Your task to perform on an android device: Clear all items from cart on ebay.com. Image 0: 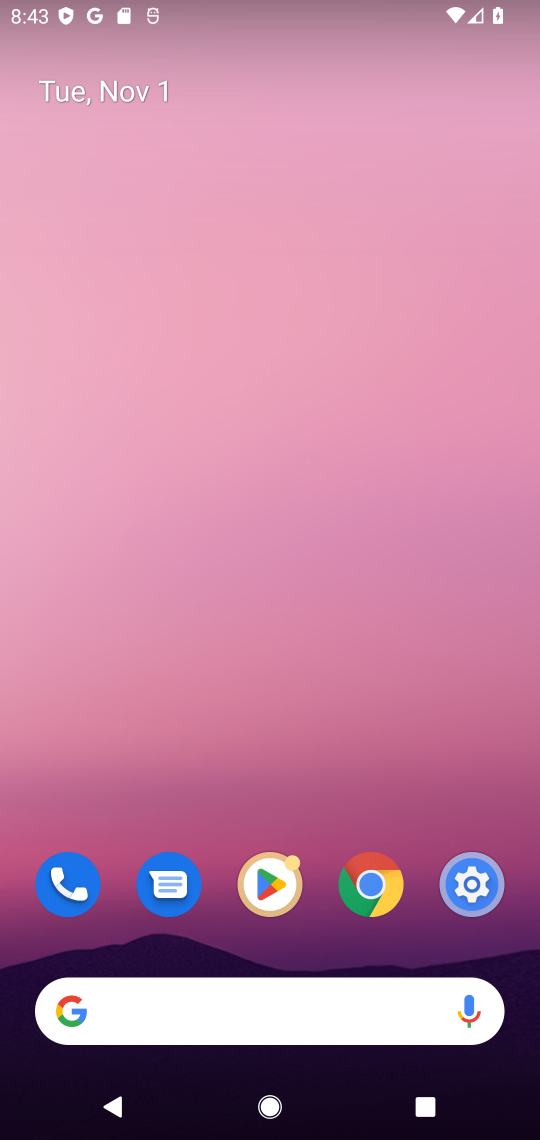
Step 0: click (367, 877)
Your task to perform on an android device: Clear all items from cart on ebay.com. Image 1: 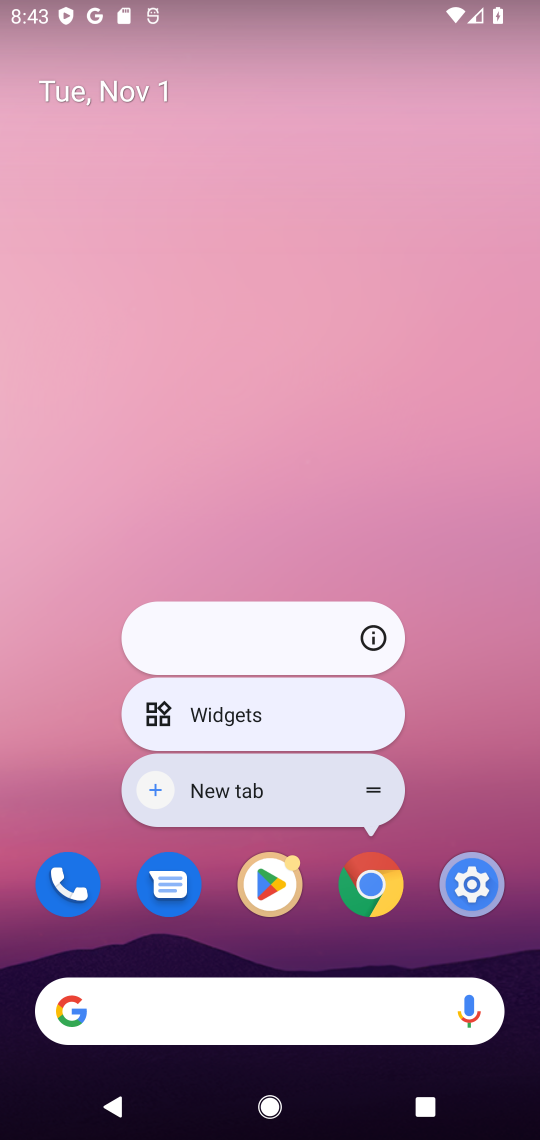
Step 1: click (387, 882)
Your task to perform on an android device: Clear all items from cart on ebay.com. Image 2: 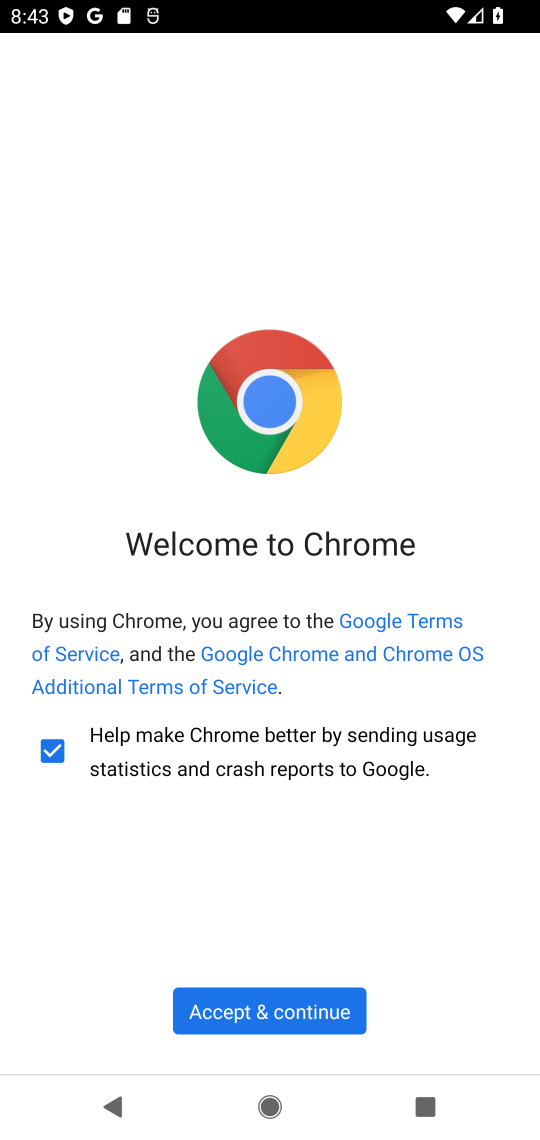
Step 2: click (297, 1005)
Your task to perform on an android device: Clear all items from cart on ebay.com. Image 3: 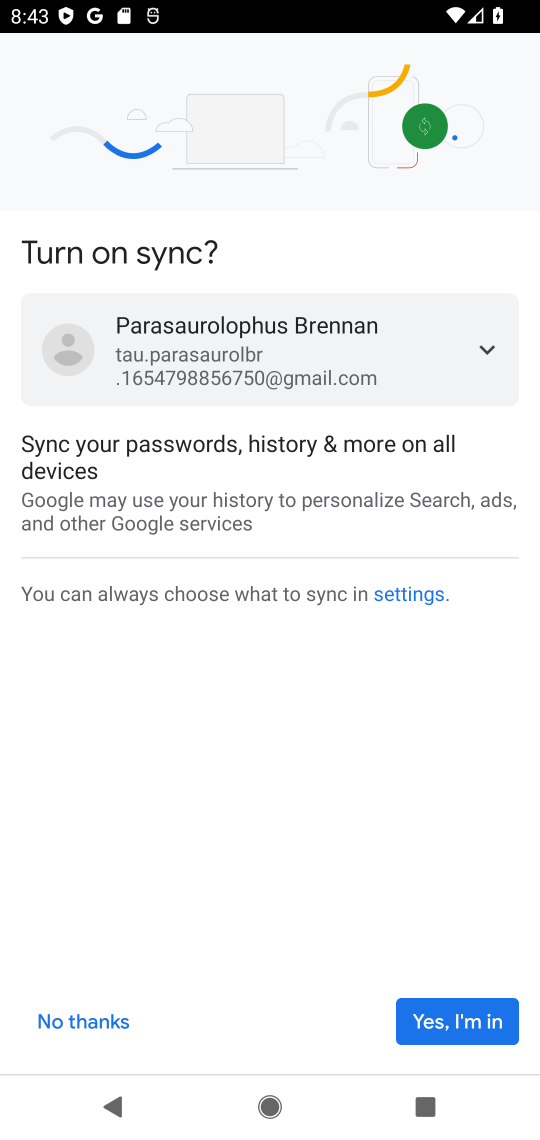
Step 3: click (470, 1017)
Your task to perform on an android device: Clear all items from cart on ebay.com. Image 4: 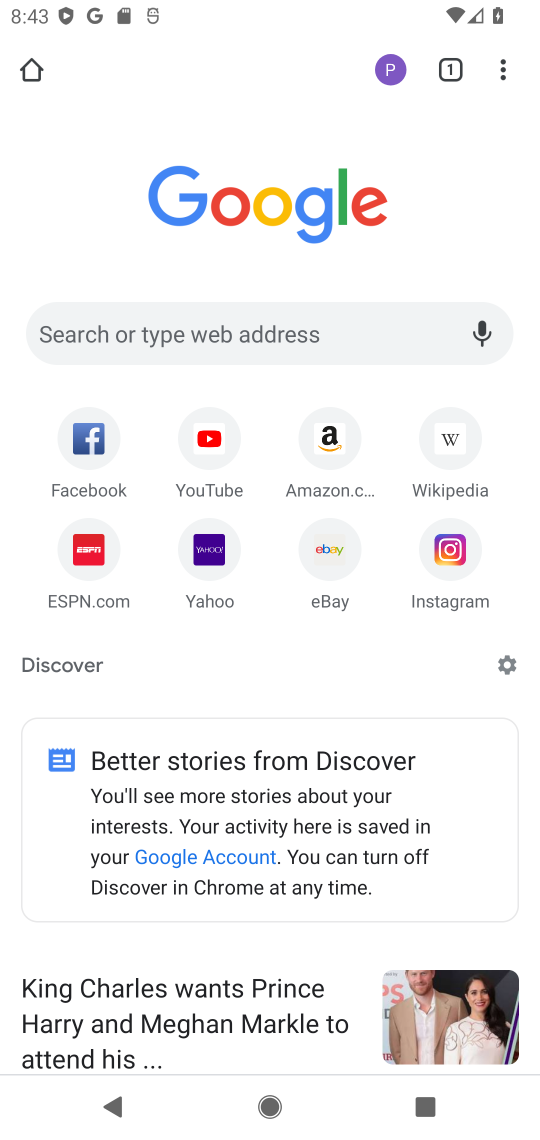
Step 4: click (294, 326)
Your task to perform on an android device: Clear all items from cart on ebay.com. Image 5: 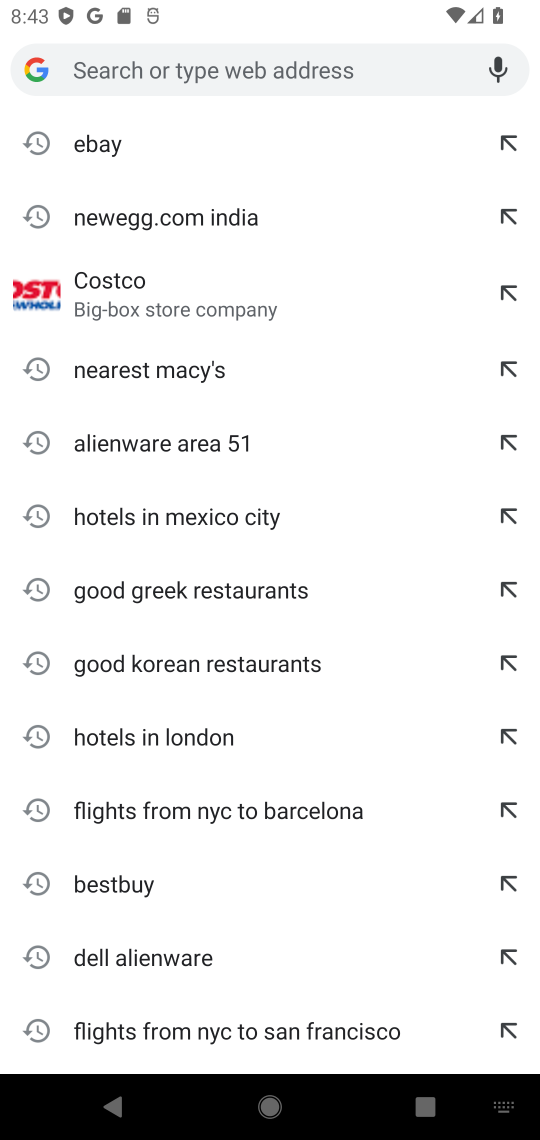
Step 5: type "ebay.com"
Your task to perform on an android device: Clear all items from cart on ebay.com. Image 6: 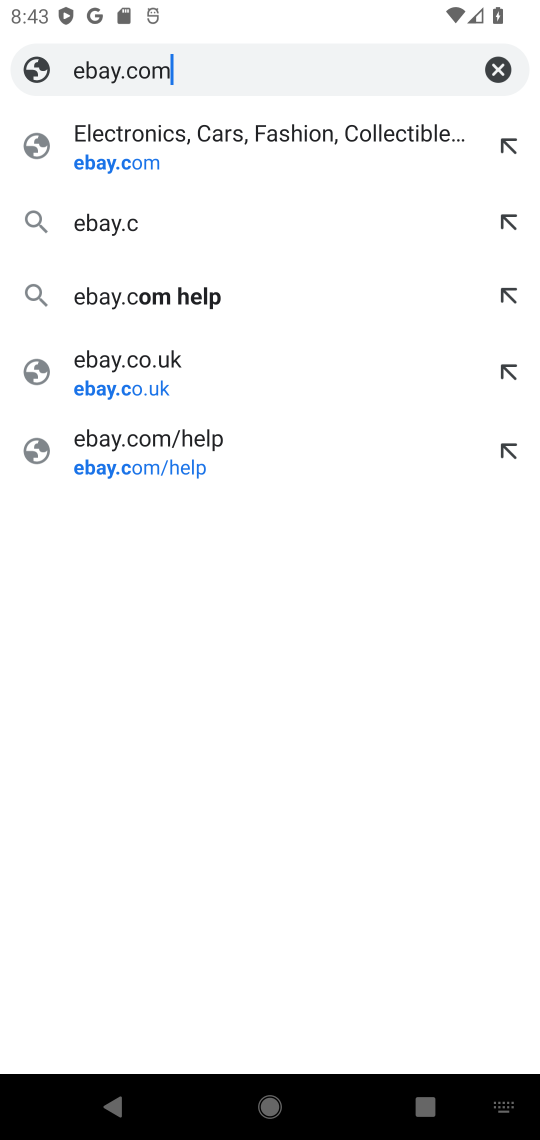
Step 6: press enter
Your task to perform on an android device: Clear all items from cart on ebay.com. Image 7: 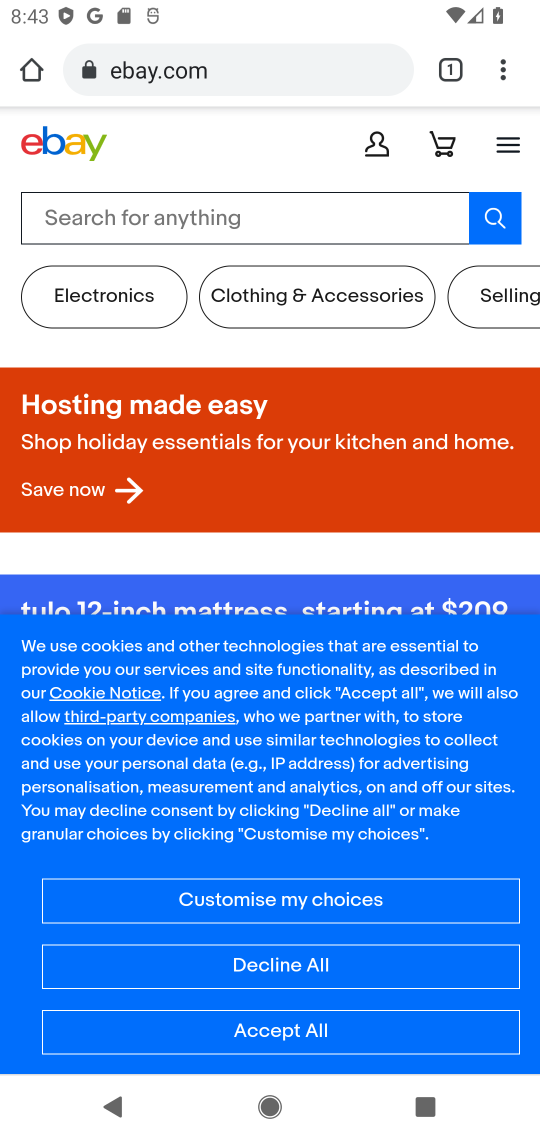
Step 7: click (155, 206)
Your task to perform on an android device: Clear all items from cart on ebay.com. Image 8: 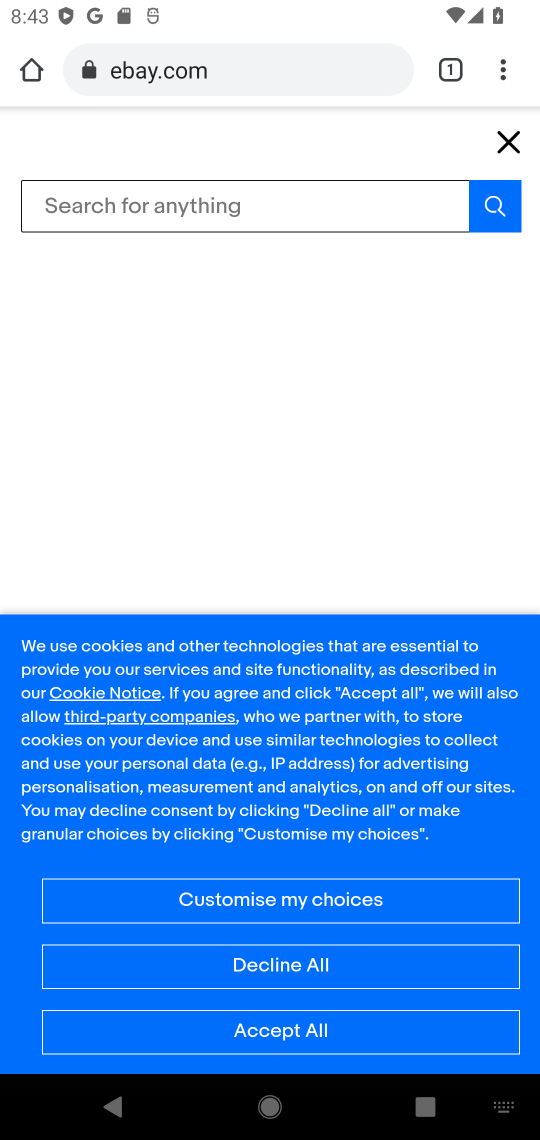
Step 8: click (501, 138)
Your task to perform on an android device: Clear all items from cart on ebay.com. Image 9: 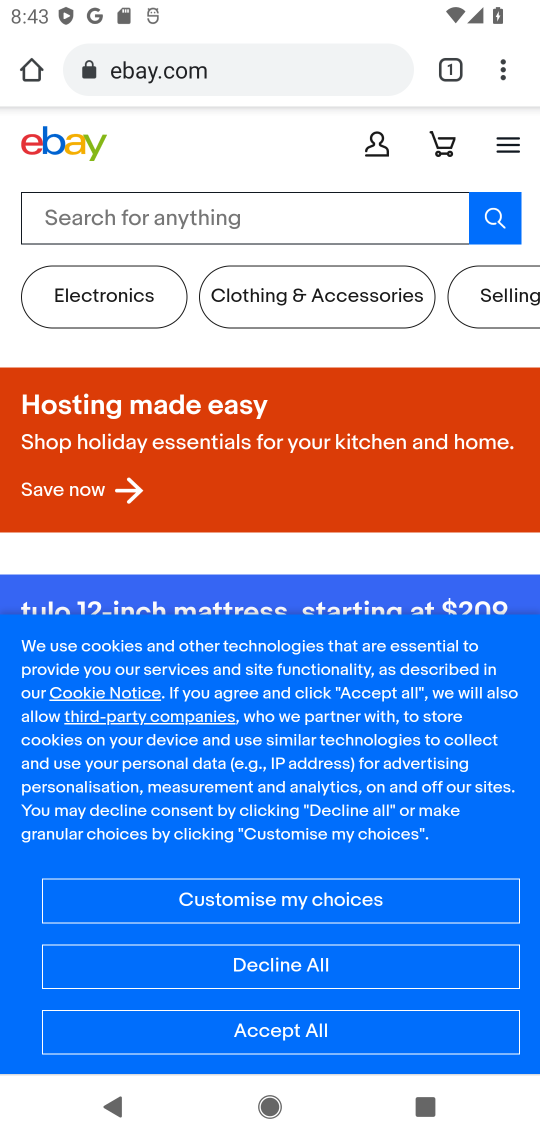
Step 9: click (443, 148)
Your task to perform on an android device: Clear all items from cart on ebay.com. Image 10: 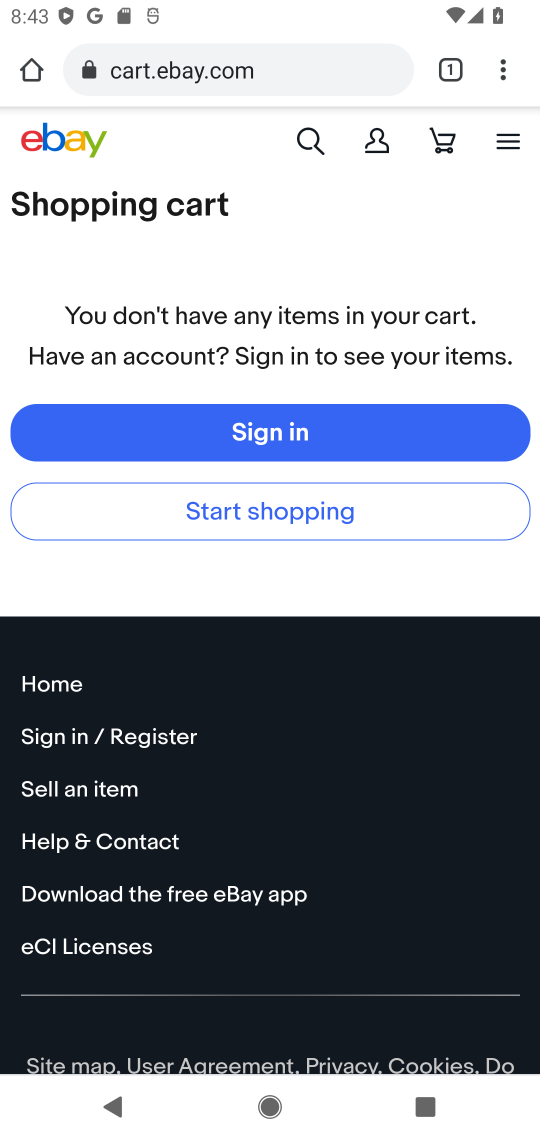
Step 10: task complete